Your task to perform on an android device: Search for seafood restaurants on Google Maps Image 0: 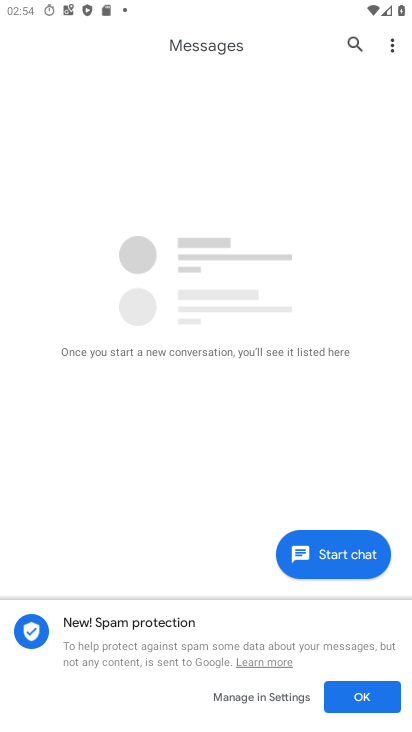
Step 0: press home button
Your task to perform on an android device: Search for seafood restaurants on Google Maps Image 1: 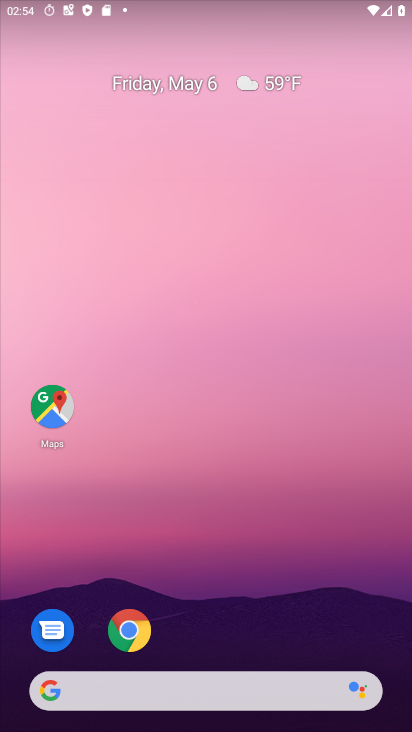
Step 1: click (53, 399)
Your task to perform on an android device: Search for seafood restaurants on Google Maps Image 2: 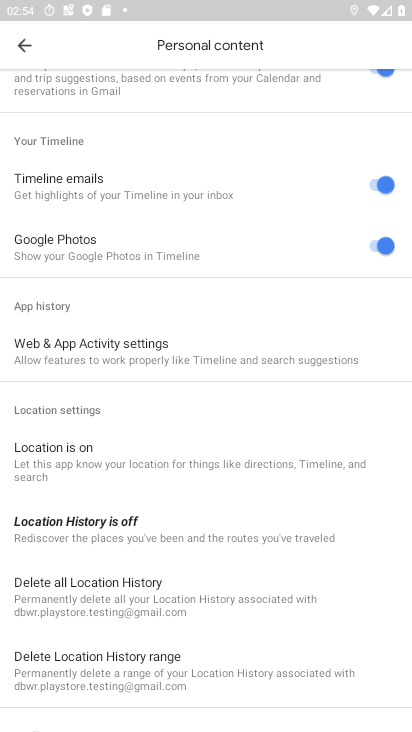
Step 2: click (25, 51)
Your task to perform on an android device: Search for seafood restaurants on Google Maps Image 3: 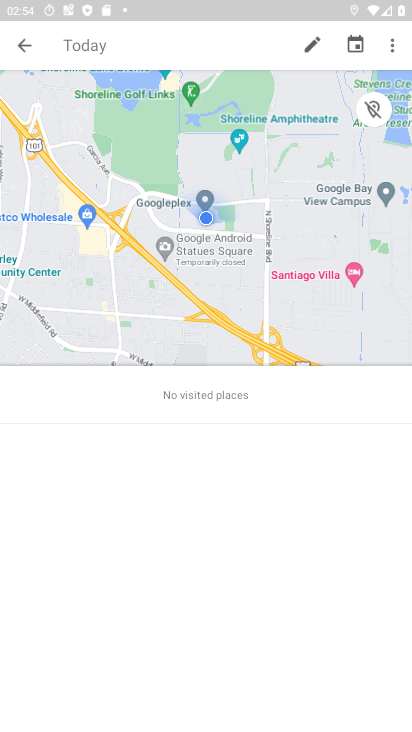
Step 3: click (18, 50)
Your task to perform on an android device: Search for seafood restaurants on Google Maps Image 4: 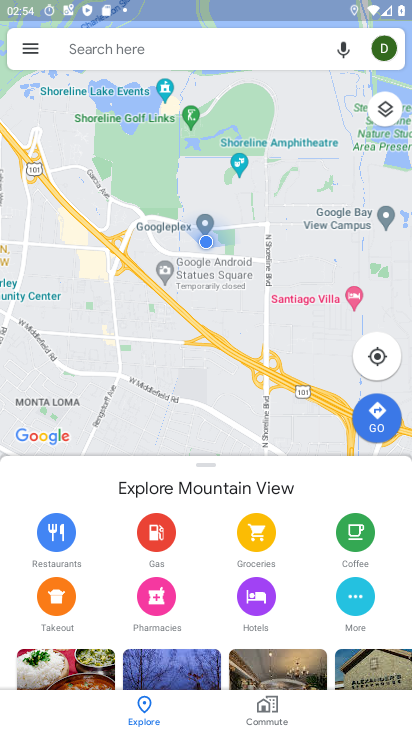
Step 4: click (151, 62)
Your task to perform on an android device: Search for seafood restaurants on Google Maps Image 5: 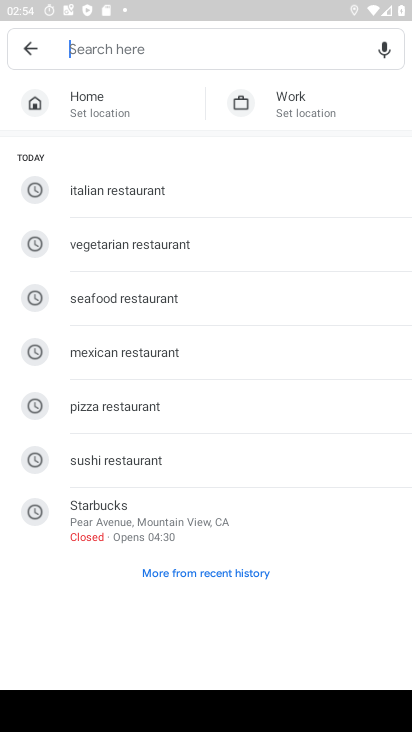
Step 5: type "seafood restaurants"
Your task to perform on an android device: Search for seafood restaurants on Google Maps Image 6: 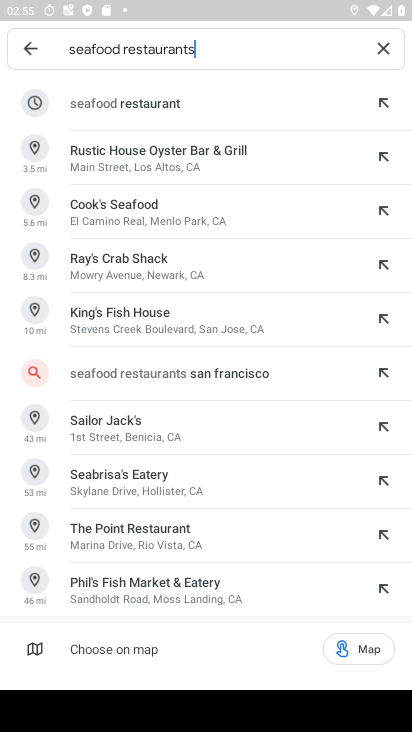
Step 6: click (160, 106)
Your task to perform on an android device: Search for seafood restaurants on Google Maps Image 7: 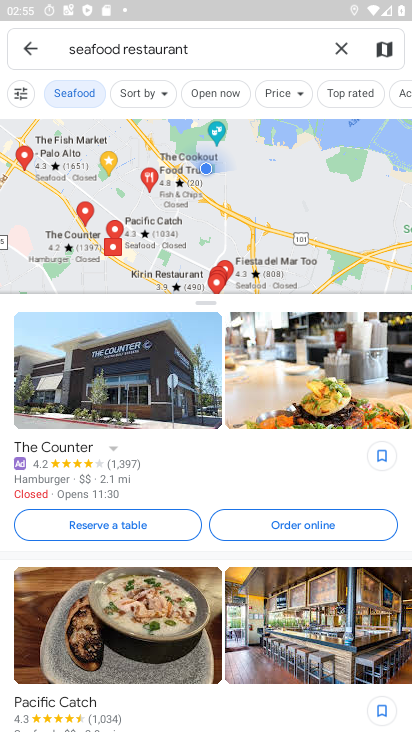
Step 7: task complete